Your task to perform on an android device: Open the calendar app, open the side menu, and click the "Day" option Image 0: 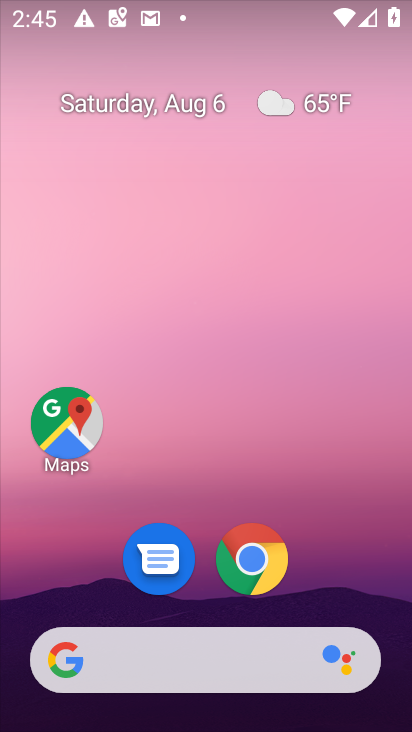
Step 0: drag from (202, 492) to (206, 179)
Your task to perform on an android device: Open the calendar app, open the side menu, and click the "Day" option Image 1: 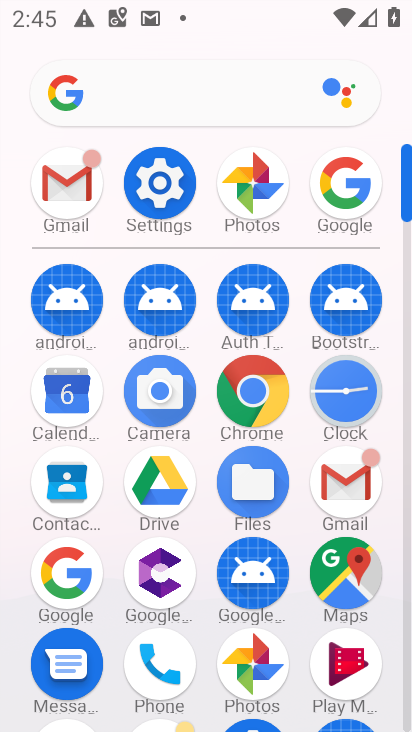
Step 1: click (67, 393)
Your task to perform on an android device: Open the calendar app, open the side menu, and click the "Day" option Image 2: 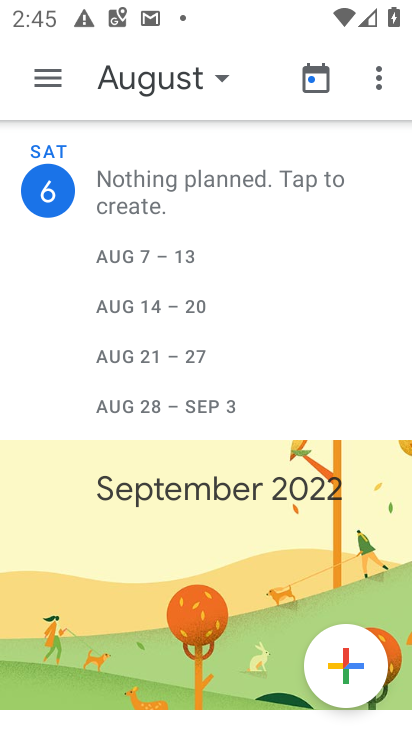
Step 2: click (34, 69)
Your task to perform on an android device: Open the calendar app, open the side menu, and click the "Day" option Image 3: 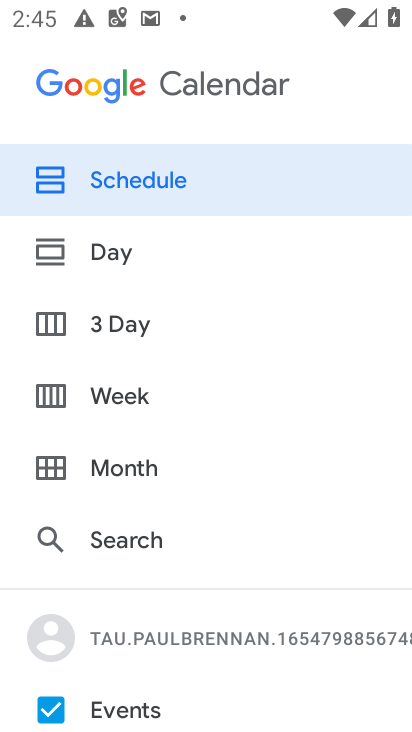
Step 3: click (100, 240)
Your task to perform on an android device: Open the calendar app, open the side menu, and click the "Day" option Image 4: 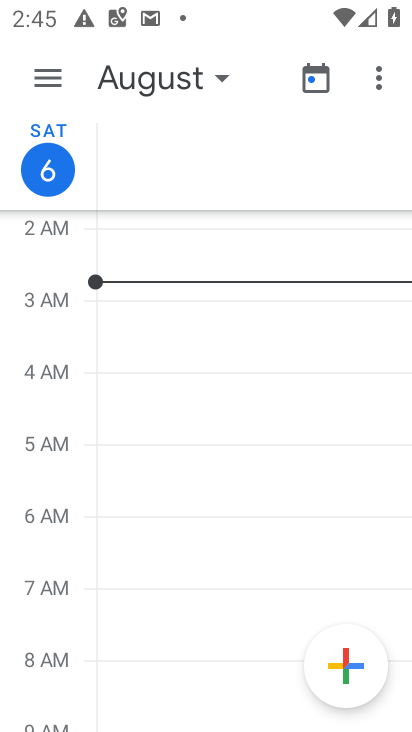
Step 4: click (57, 64)
Your task to perform on an android device: Open the calendar app, open the side menu, and click the "Day" option Image 5: 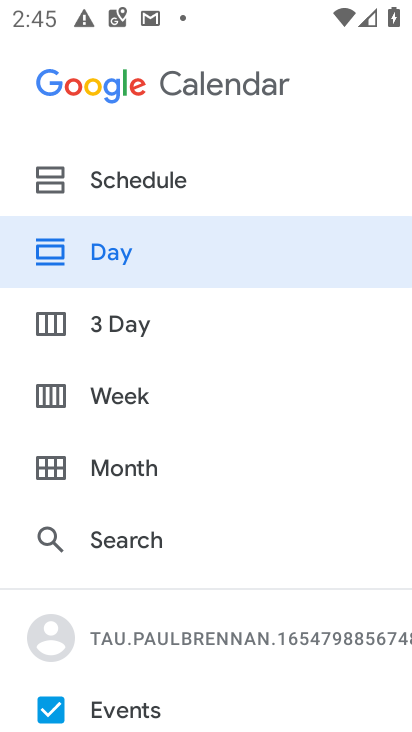
Step 5: task complete